Your task to perform on an android device: check battery use Image 0: 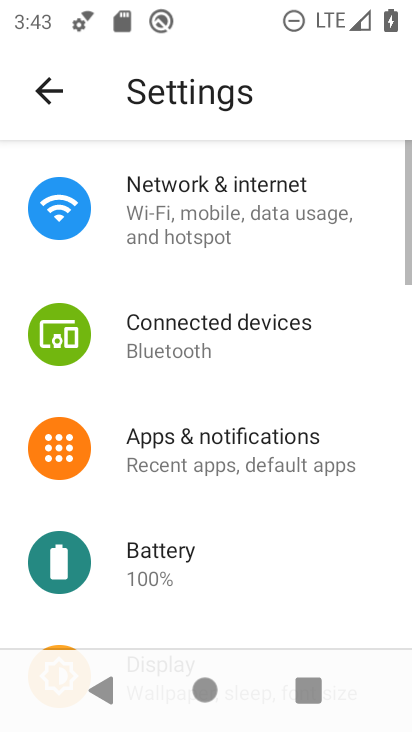
Step 0: click (184, 567)
Your task to perform on an android device: check battery use Image 1: 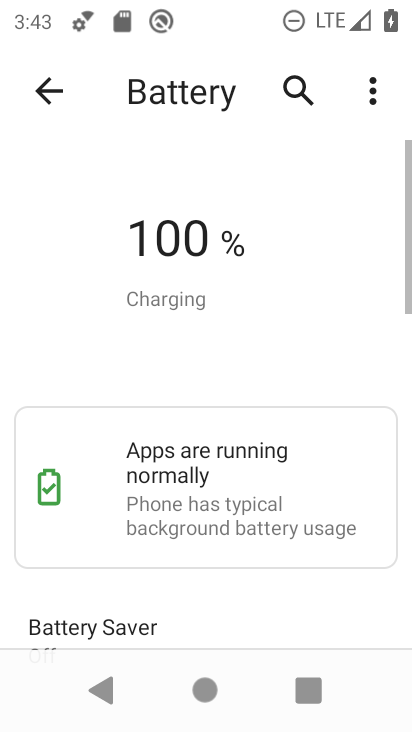
Step 1: click (373, 101)
Your task to perform on an android device: check battery use Image 2: 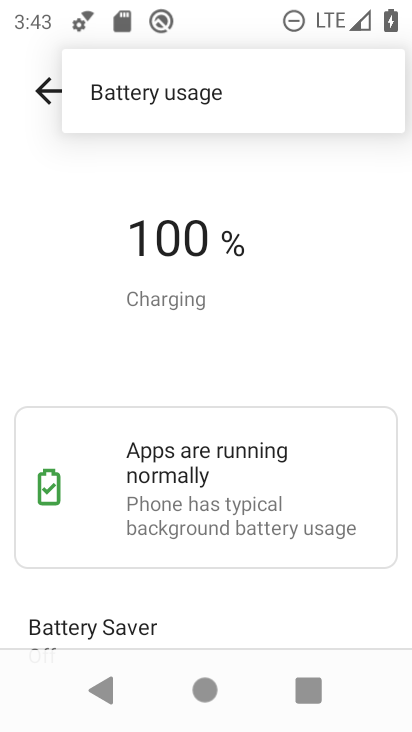
Step 2: click (231, 104)
Your task to perform on an android device: check battery use Image 3: 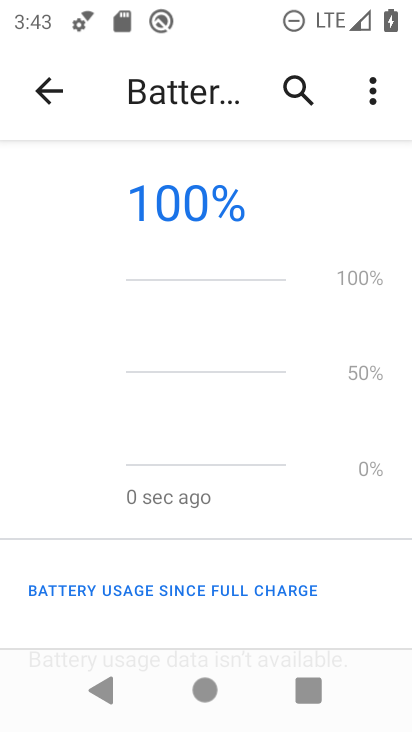
Step 3: task complete